Your task to perform on an android device: Search for "razer blade" on walmart, select the first entry, add it to the cart, then select checkout. Image 0: 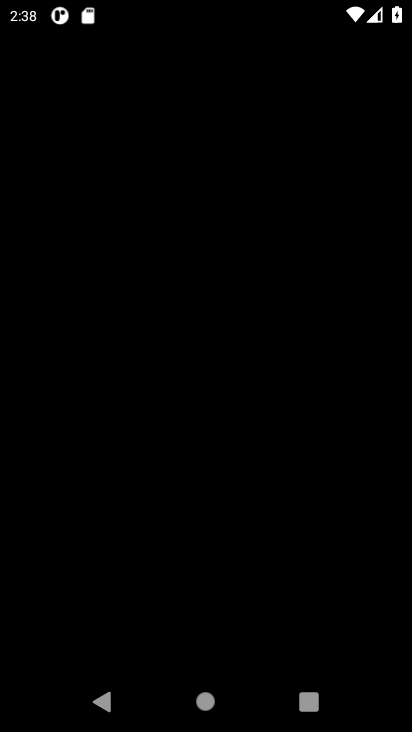
Step 0: press home button
Your task to perform on an android device: Search for "razer blade" on walmart, select the first entry, add it to the cart, then select checkout. Image 1: 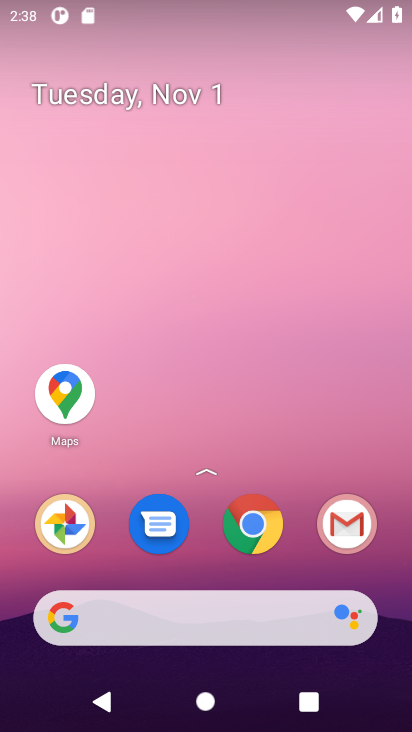
Step 1: click (253, 522)
Your task to perform on an android device: Search for "razer blade" on walmart, select the first entry, add it to the cart, then select checkout. Image 2: 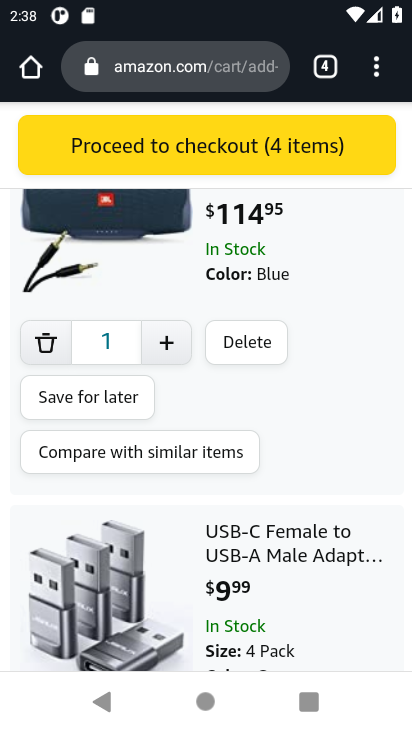
Step 2: click (182, 41)
Your task to perform on an android device: Search for "razer blade" on walmart, select the first entry, add it to the cart, then select checkout. Image 3: 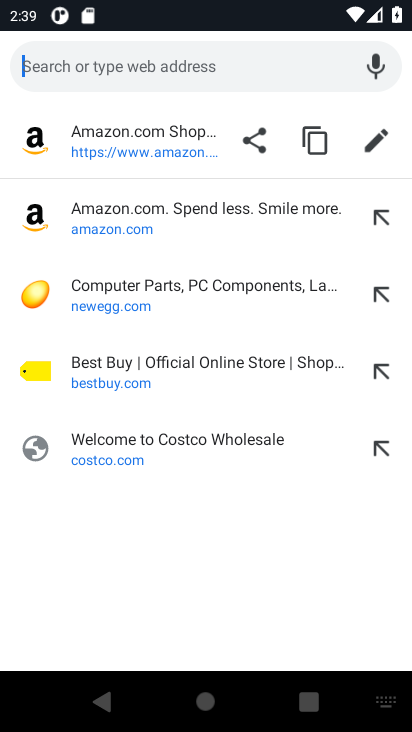
Step 3: type "walmart"
Your task to perform on an android device: Search for "razer blade" on walmart, select the first entry, add it to the cart, then select checkout. Image 4: 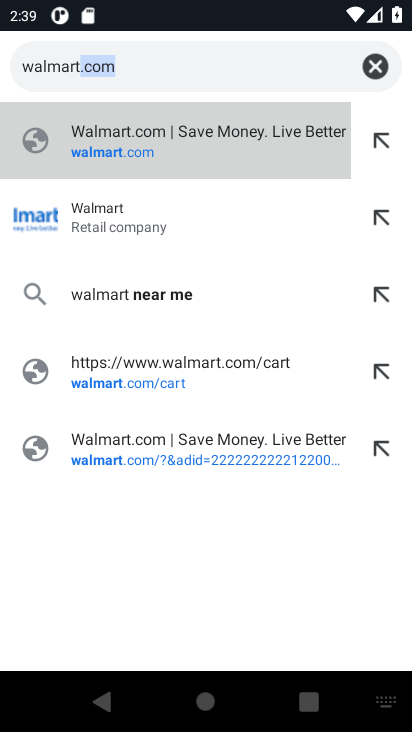
Step 4: click (86, 208)
Your task to perform on an android device: Search for "razer blade" on walmart, select the first entry, add it to the cart, then select checkout. Image 5: 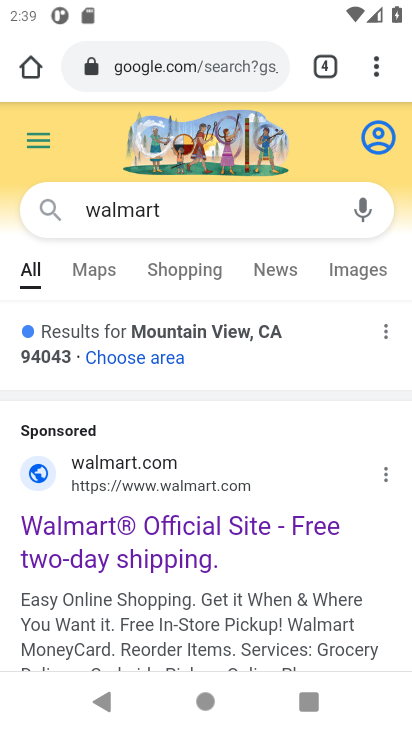
Step 5: click (49, 535)
Your task to perform on an android device: Search for "razer blade" on walmart, select the first entry, add it to the cart, then select checkout. Image 6: 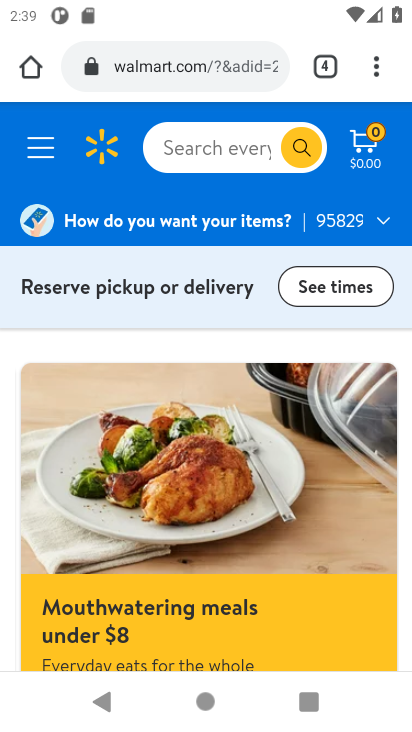
Step 6: click (206, 143)
Your task to perform on an android device: Search for "razer blade" on walmart, select the first entry, add it to the cart, then select checkout. Image 7: 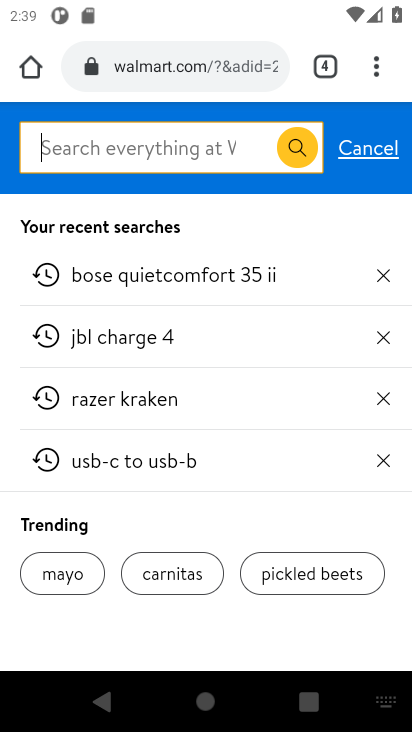
Step 7: type "razer blade"
Your task to perform on an android device: Search for "razer blade" on walmart, select the first entry, add it to the cart, then select checkout. Image 8: 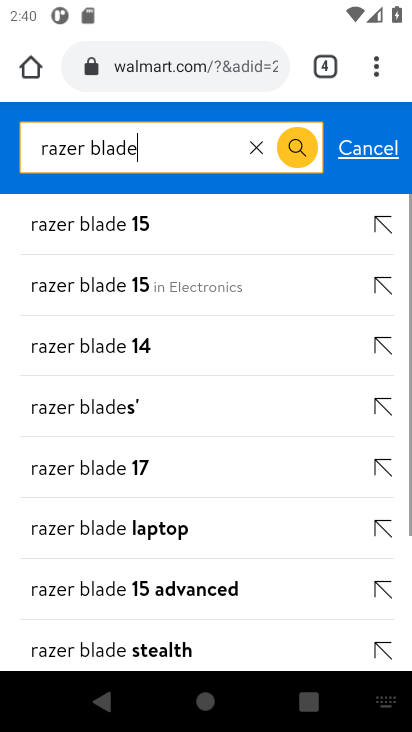
Step 8: click (89, 224)
Your task to perform on an android device: Search for "razer blade" on walmart, select the first entry, add it to the cart, then select checkout. Image 9: 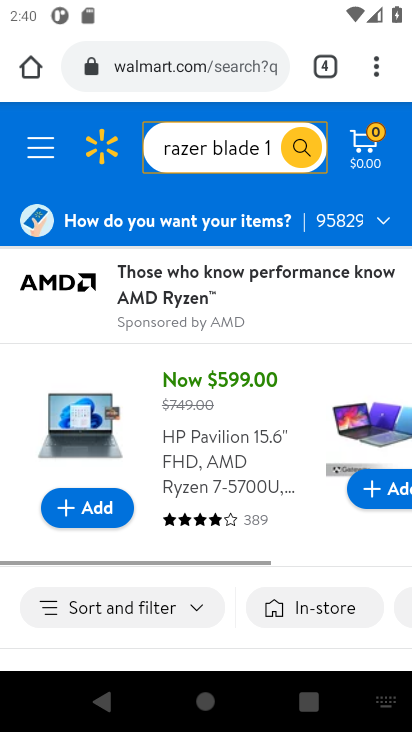
Step 9: drag from (276, 427) to (228, 114)
Your task to perform on an android device: Search for "razer blade" on walmart, select the first entry, add it to the cart, then select checkout. Image 10: 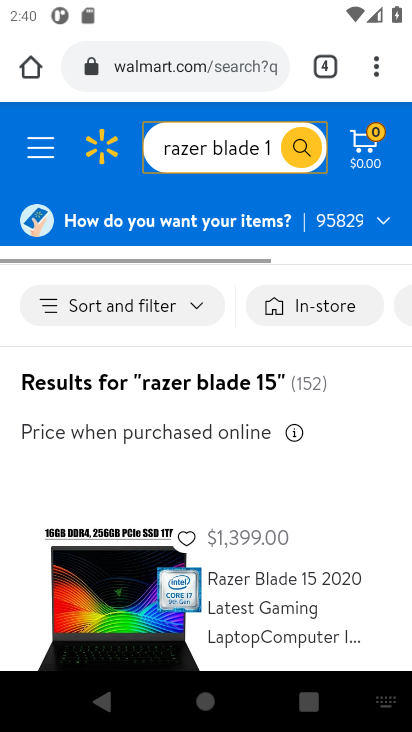
Step 10: drag from (235, 577) to (226, 343)
Your task to perform on an android device: Search for "razer blade" on walmart, select the first entry, add it to the cart, then select checkout. Image 11: 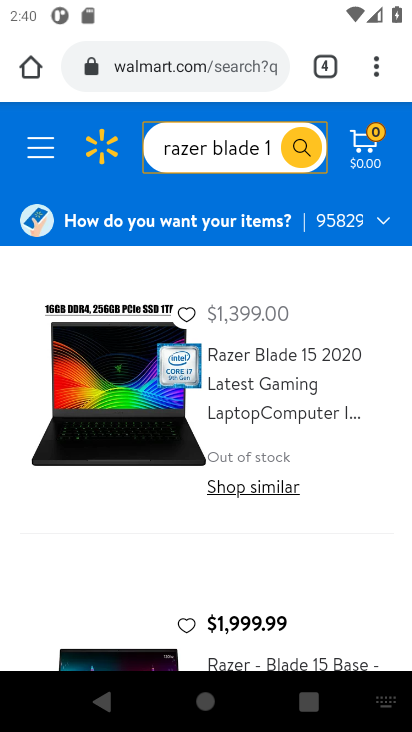
Step 11: drag from (237, 562) to (238, 310)
Your task to perform on an android device: Search for "razer blade" on walmart, select the first entry, add it to the cart, then select checkout. Image 12: 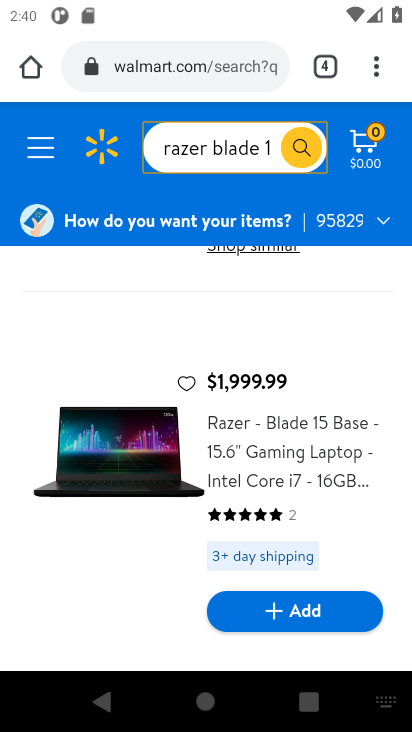
Step 12: drag from (185, 602) to (204, 530)
Your task to perform on an android device: Search for "razer blade" on walmart, select the first entry, add it to the cart, then select checkout. Image 13: 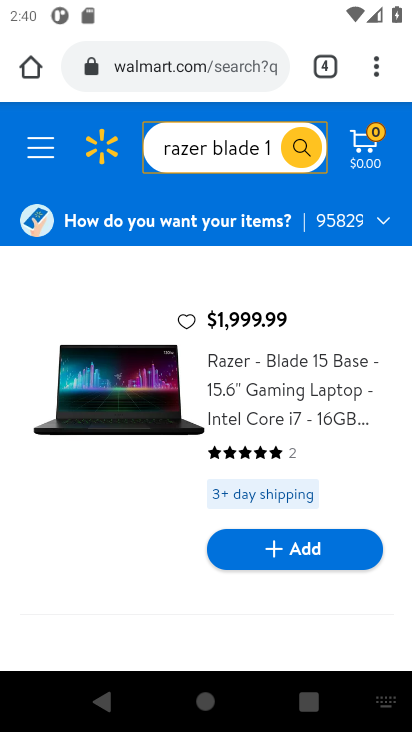
Step 13: click (278, 545)
Your task to perform on an android device: Search for "razer blade" on walmart, select the first entry, add it to the cart, then select checkout. Image 14: 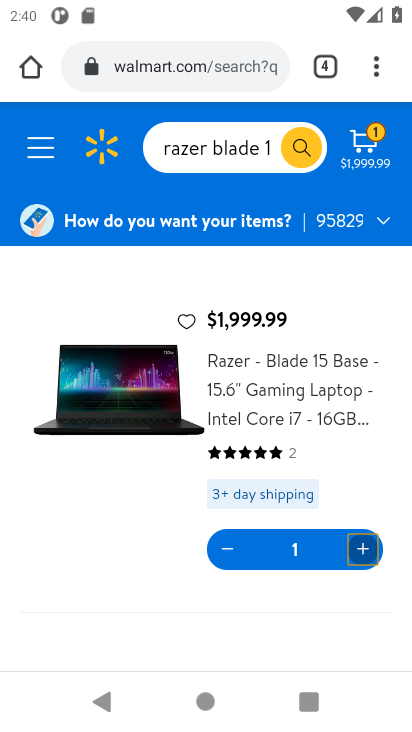
Step 14: click (368, 138)
Your task to perform on an android device: Search for "razer blade" on walmart, select the first entry, add it to the cart, then select checkout. Image 15: 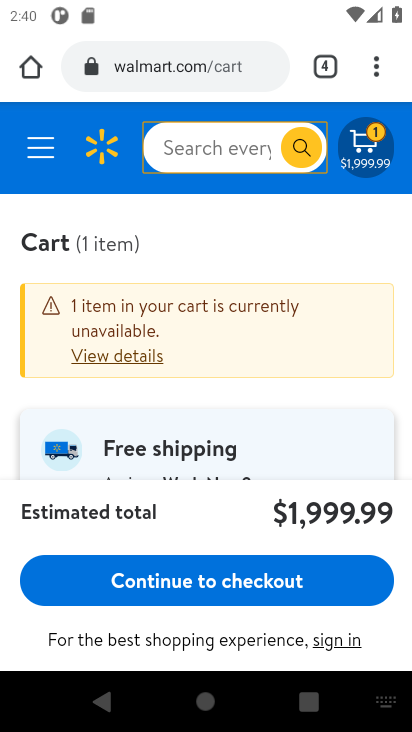
Step 15: click (184, 581)
Your task to perform on an android device: Search for "razer blade" on walmart, select the first entry, add it to the cart, then select checkout. Image 16: 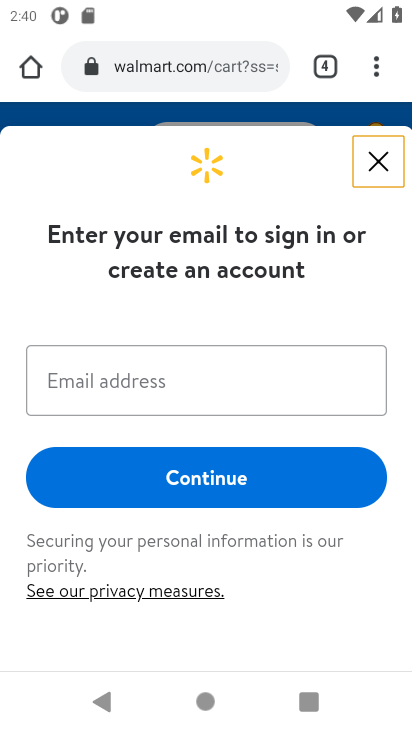
Step 16: task complete